Your task to perform on an android device: turn on the 12-hour format for clock Image 0: 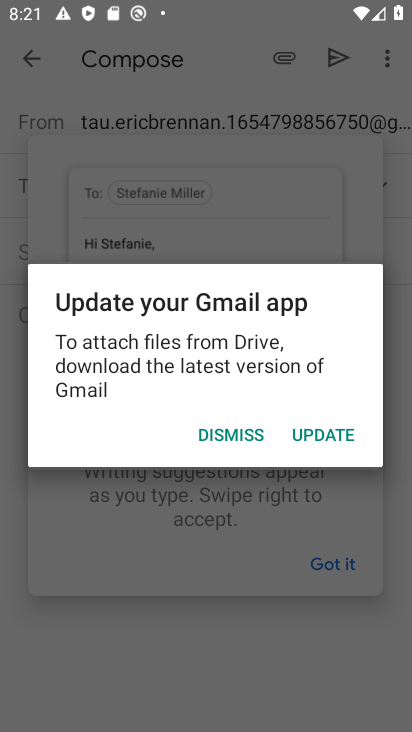
Step 0: press home button
Your task to perform on an android device: turn on the 12-hour format for clock Image 1: 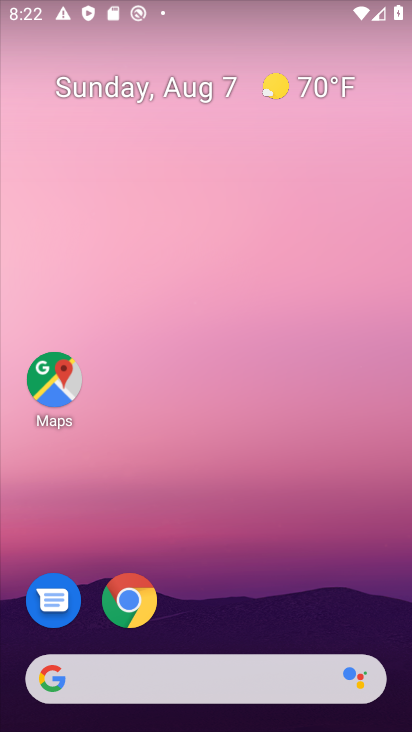
Step 1: drag from (189, 585) to (200, 70)
Your task to perform on an android device: turn on the 12-hour format for clock Image 2: 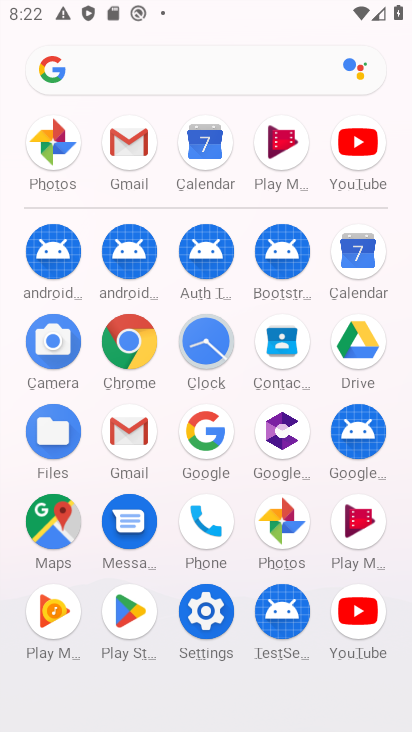
Step 2: click (207, 359)
Your task to perform on an android device: turn on the 12-hour format for clock Image 3: 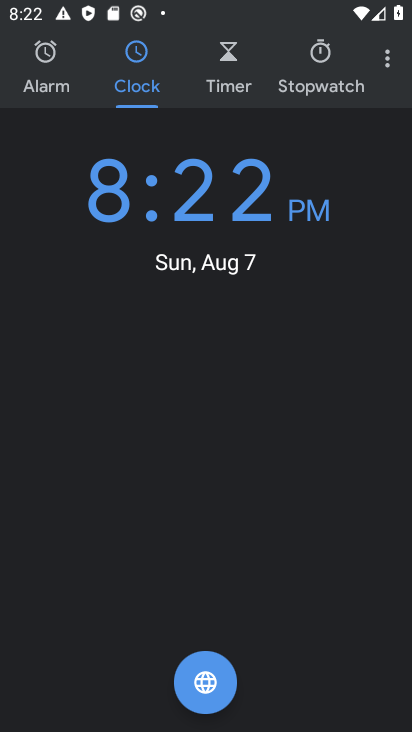
Step 3: click (384, 62)
Your task to perform on an android device: turn on the 12-hour format for clock Image 4: 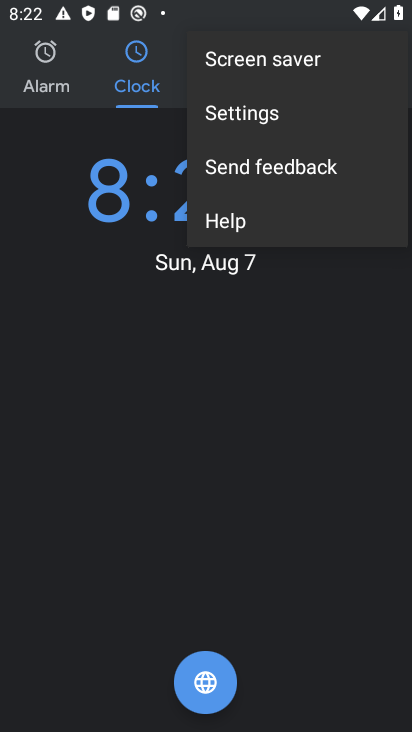
Step 4: click (289, 113)
Your task to perform on an android device: turn on the 12-hour format for clock Image 5: 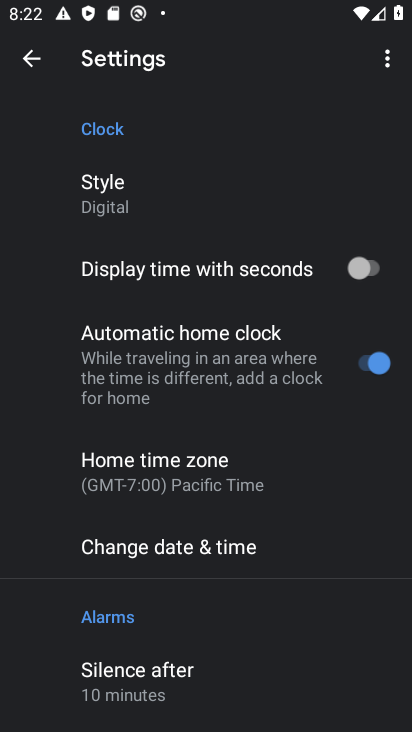
Step 5: click (131, 549)
Your task to perform on an android device: turn on the 12-hour format for clock Image 6: 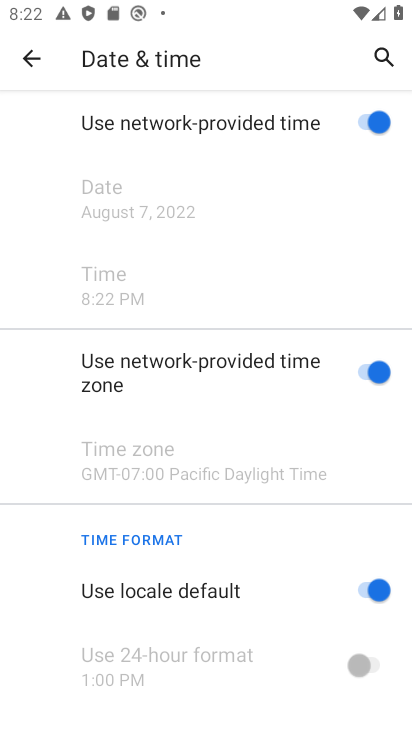
Step 6: task complete